Your task to perform on an android device: set the timer Image 0: 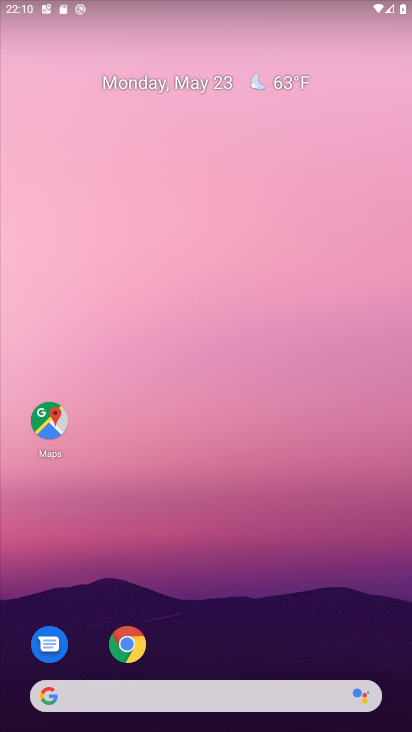
Step 0: drag from (190, 658) to (199, 79)
Your task to perform on an android device: set the timer Image 1: 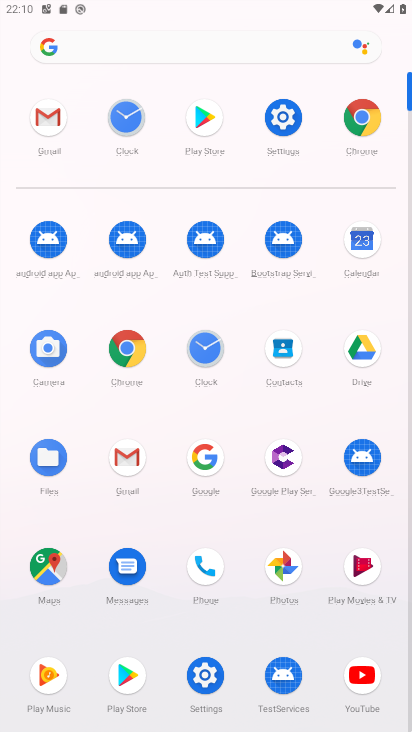
Step 1: click (201, 341)
Your task to perform on an android device: set the timer Image 2: 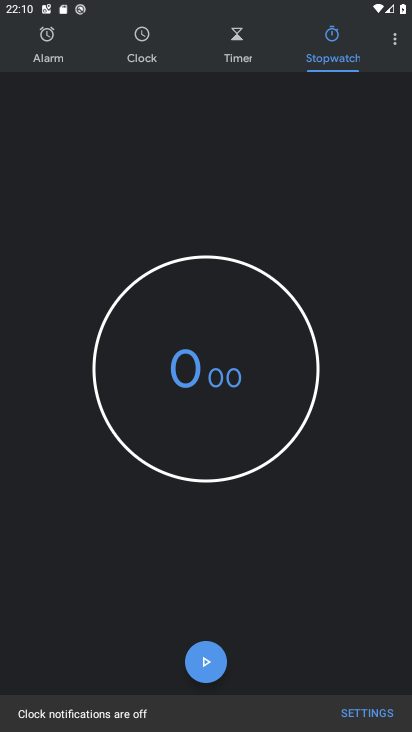
Step 2: click (234, 30)
Your task to perform on an android device: set the timer Image 3: 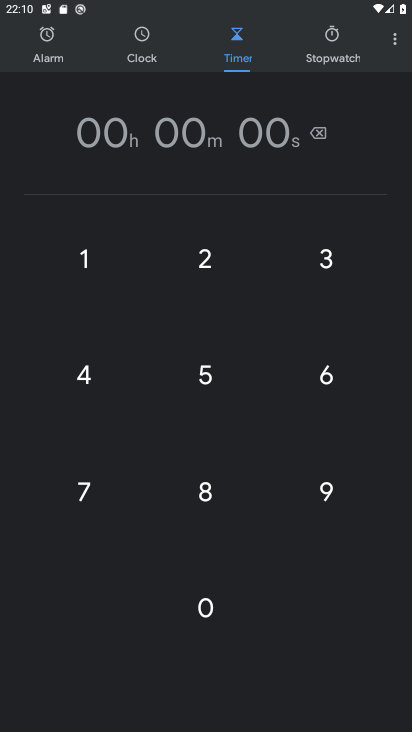
Step 3: click (207, 265)
Your task to perform on an android device: set the timer Image 4: 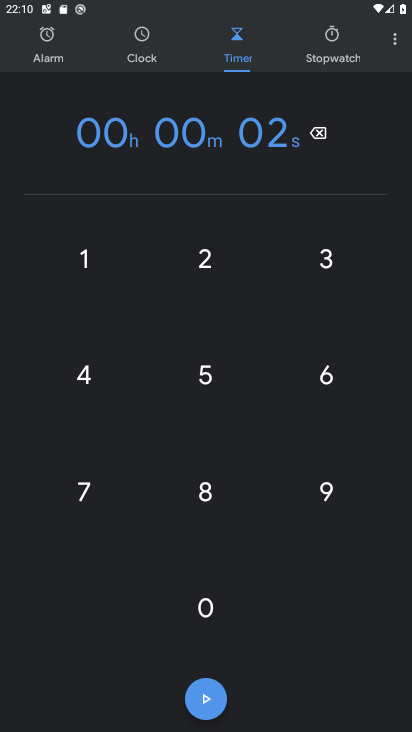
Step 4: click (210, 610)
Your task to perform on an android device: set the timer Image 5: 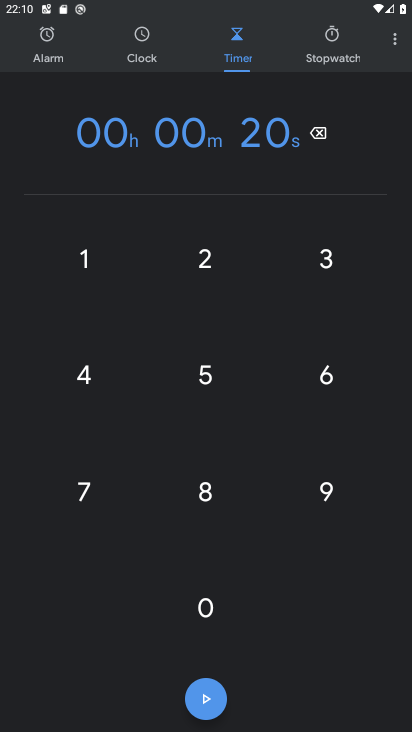
Step 5: click (207, 607)
Your task to perform on an android device: set the timer Image 6: 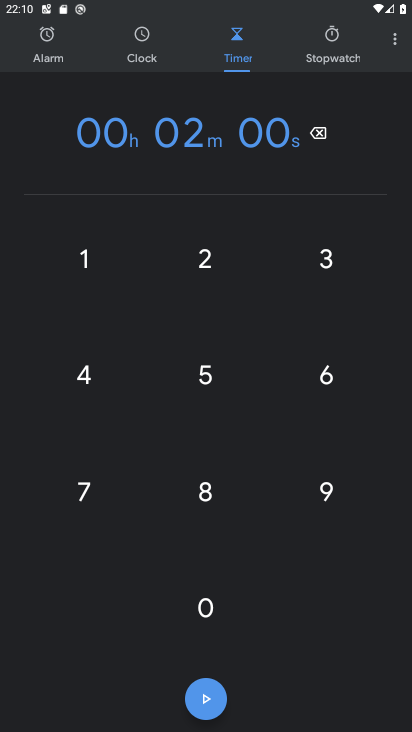
Step 6: click (207, 607)
Your task to perform on an android device: set the timer Image 7: 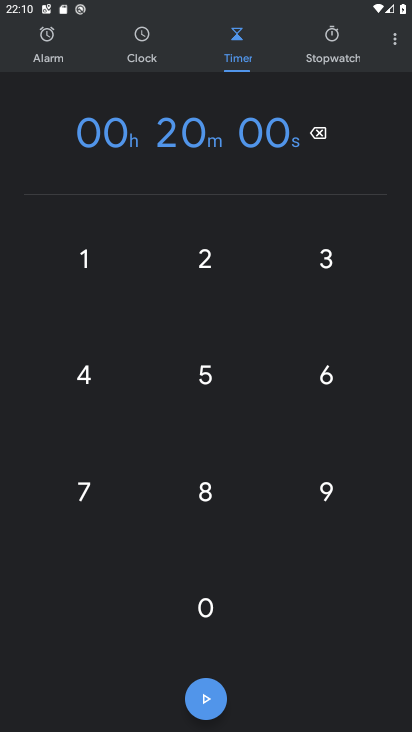
Step 7: click (204, 693)
Your task to perform on an android device: set the timer Image 8: 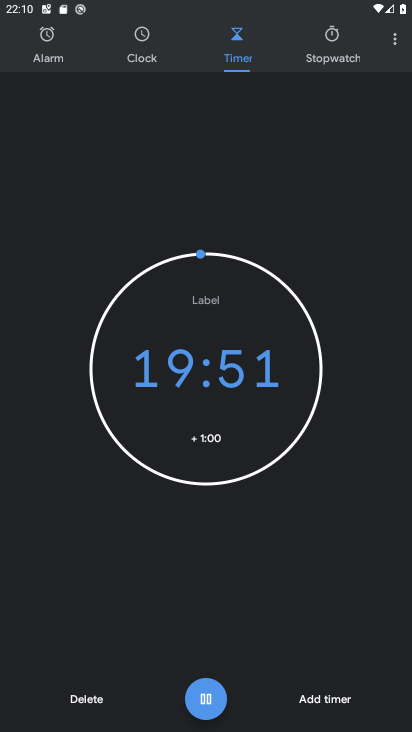
Step 8: task complete